Your task to perform on an android device: Open accessibility settings Image 0: 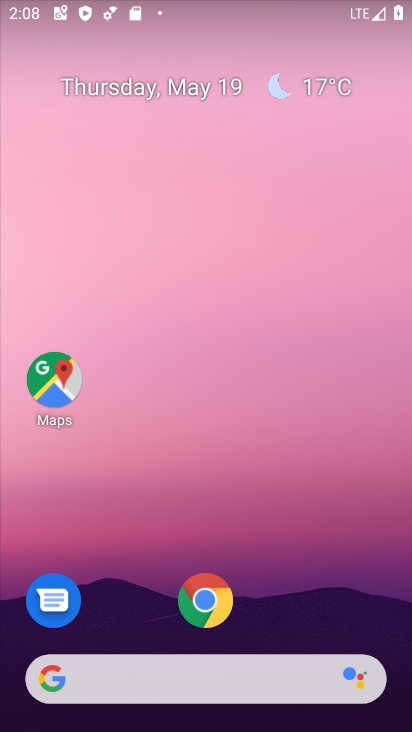
Step 0: drag from (303, 590) to (256, 77)
Your task to perform on an android device: Open accessibility settings Image 1: 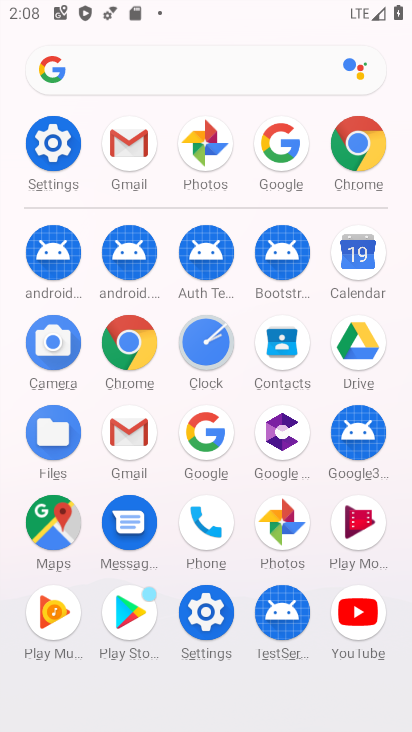
Step 1: click (56, 147)
Your task to perform on an android device: Open accessibility settings Image 2: 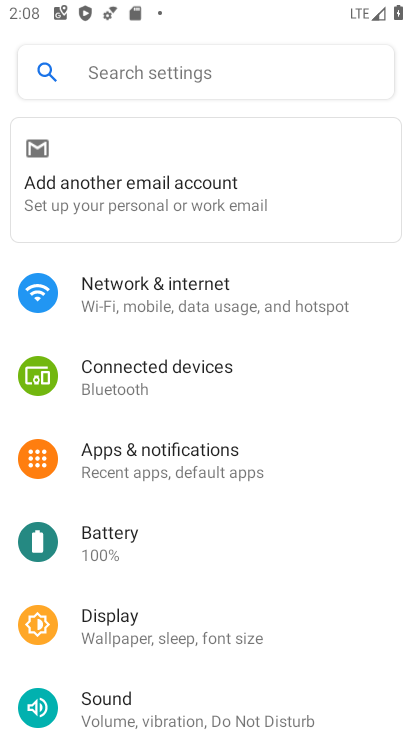
Step 2: drag from (228, 581) to (169, 249)
Your task to perform on an android device: Open accessibility settings Image 3: 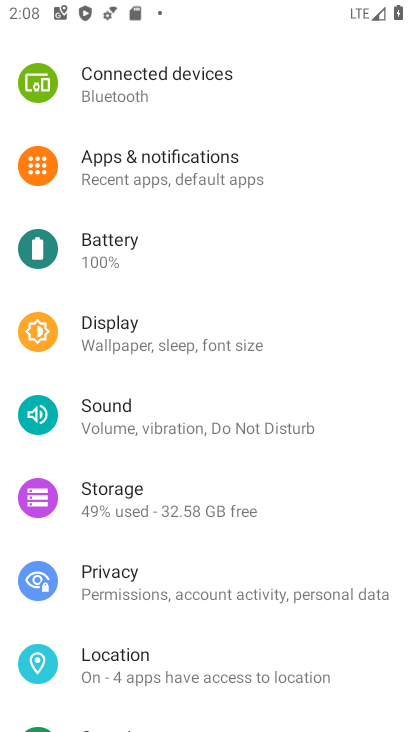
Step 3: drag from (296, 640) to (217, 229)
Your task to perform on an android device: Open accessibility settings Image 4: 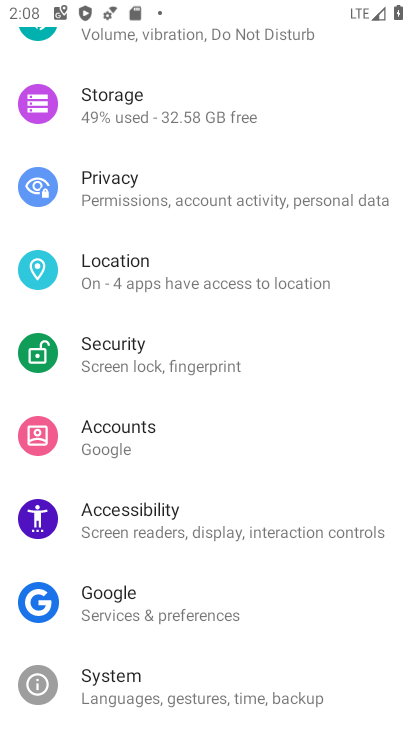
Step 4: click (205, 531)
Your task to perform on an android device: Open accessibility settings Image 5: 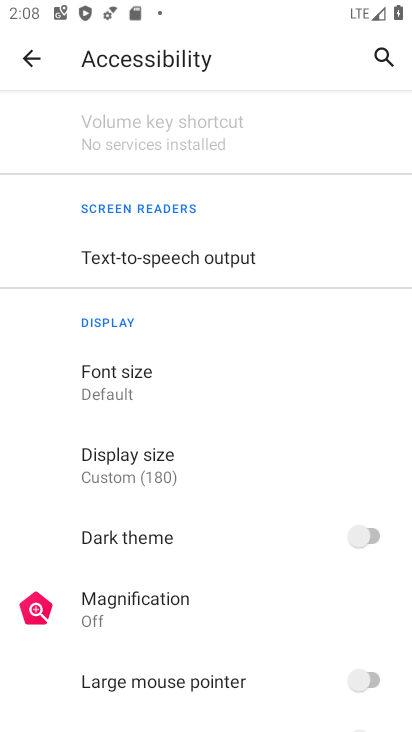
Step 5: task complete